Your task to perform on an android device: find which apps use the phone's location Image 0: 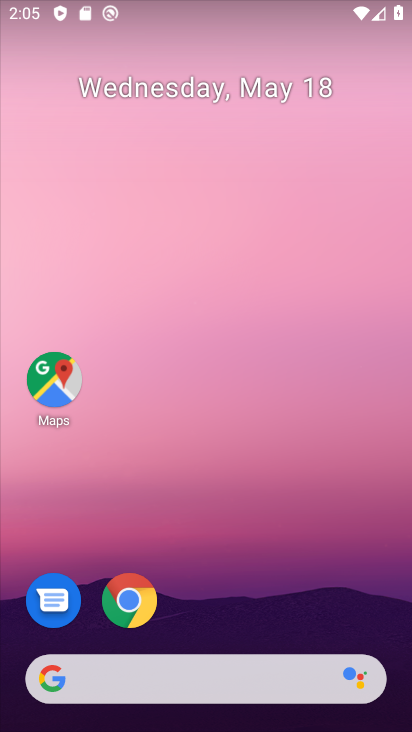
Step 0: press home button
Your task to perform on an android device: find which apps use the phone's location Image 1: 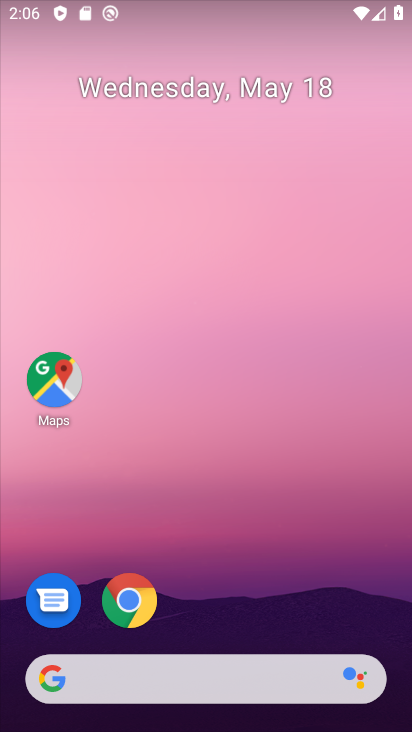
Step 1: drag from (158, 670) to (153, 202)
Your task to perform on an android device: find which apps use the phone's location Image 2: 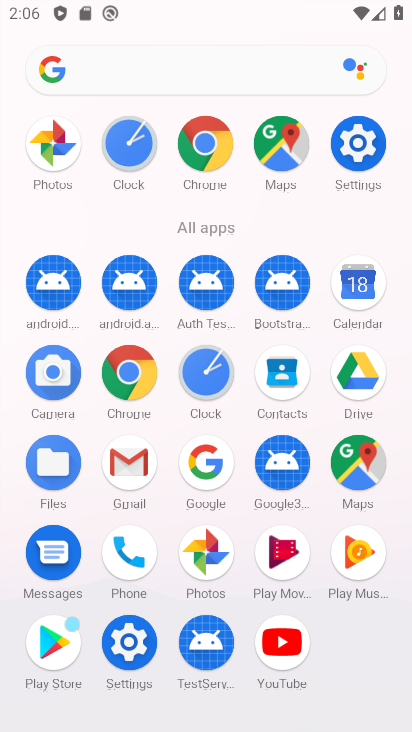
Step 2: click (356, 148)
Your task to perform on an android device: find which apps use the phone's location Image 3: 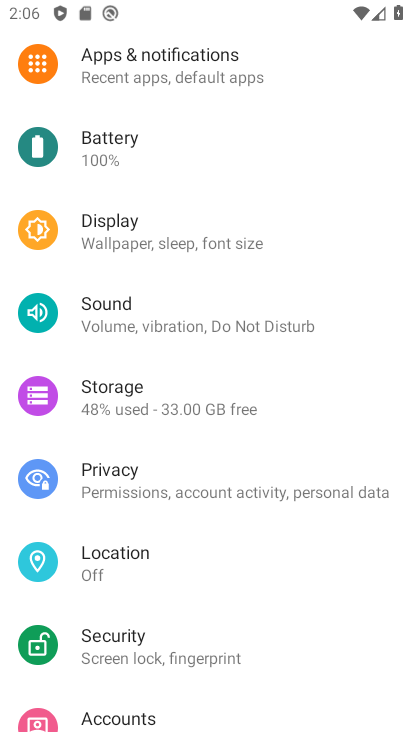
Step 3: click (93, 559)
Your task to perform on an android device: find which apps use the phone's location Image 4: 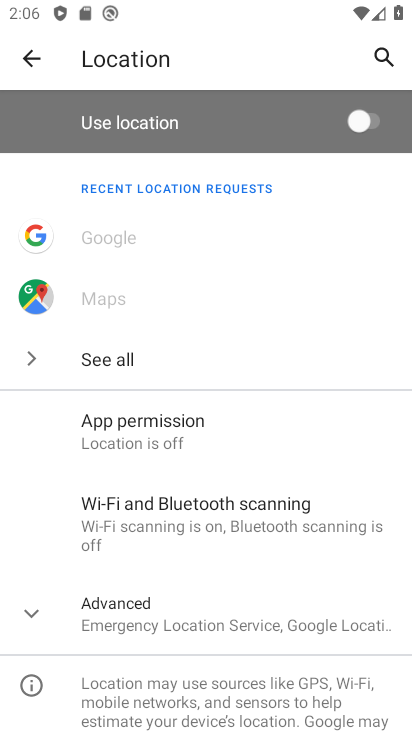
Step 4: drag from (165, 567) to (306, 264)
Your task to perform on an android device: find which apps use the phone's location Image 5: 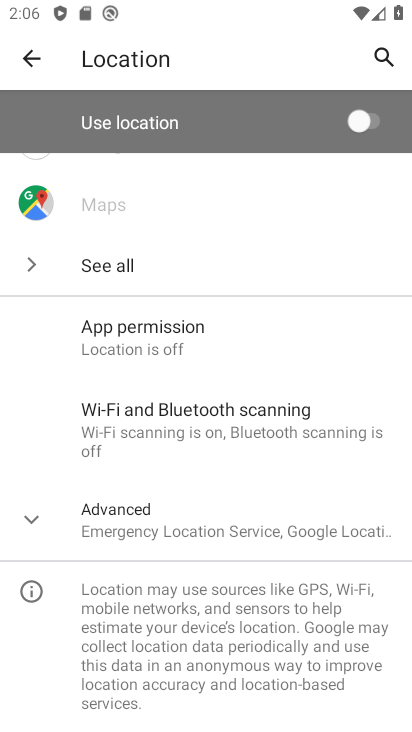
Step 5: click (125, 341)
Your task to perform on an android device: find which apps use the phone's location Image 6: 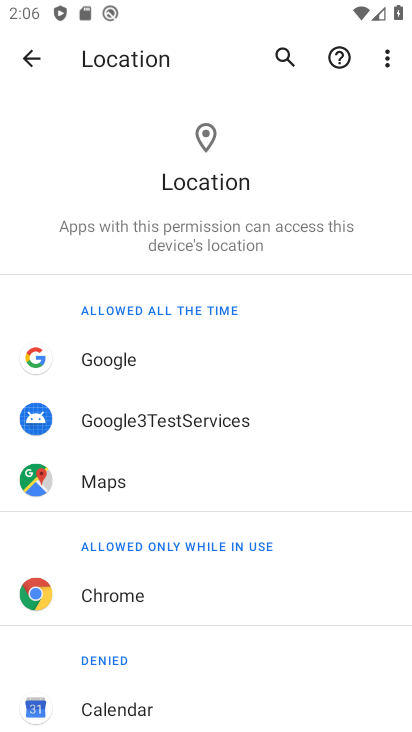
Step 6: drag from (186, 607) to (305, 151)
Your task to perform on an android device: find which apps use the phone's location Image 7: 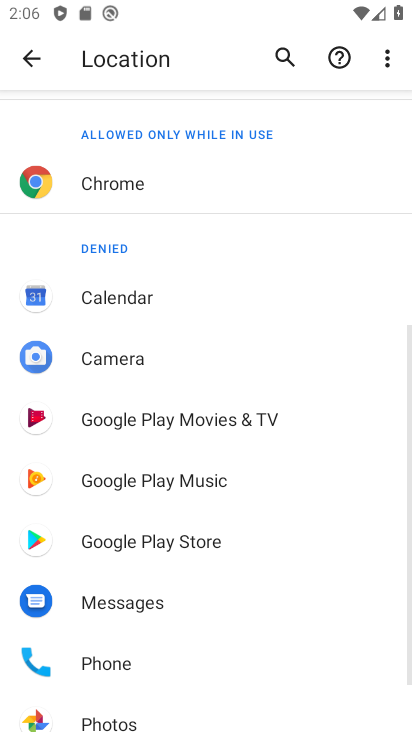
Step 7: drag from (224, 604) to (277, 324)
Your task to perform on an android device: find which apps use the phone's location Image 8: 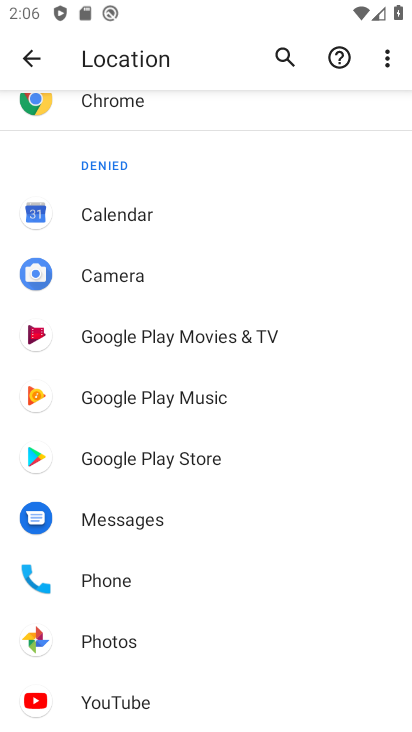
Step 8: click (136, 587)
Your task to perform on an android device: find which apps use the phone's location Image 9: 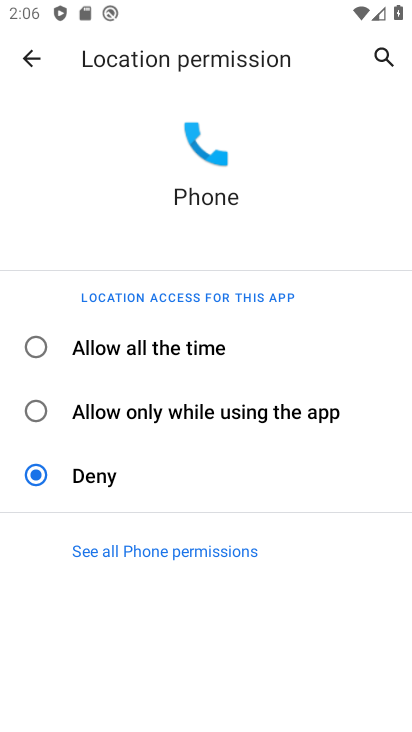
Step 9: task complete